Your task to perform on an android device: install app "TextNow: Call + Text Unlimited" Image 0: 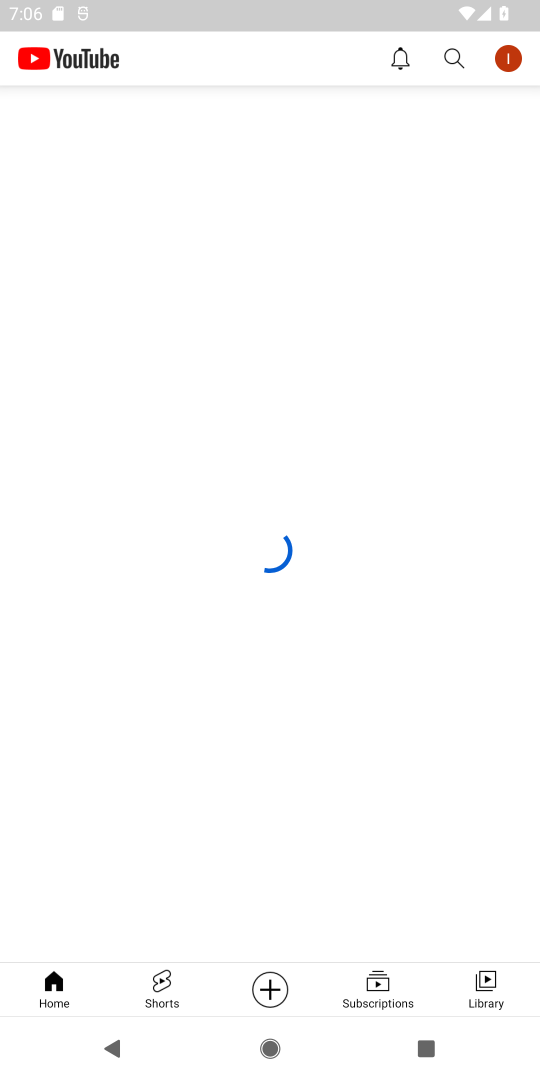
Step 0: press home button
Your task to perform on an android device: install app "TextNow: Call + Text Unlimited" Image 1: 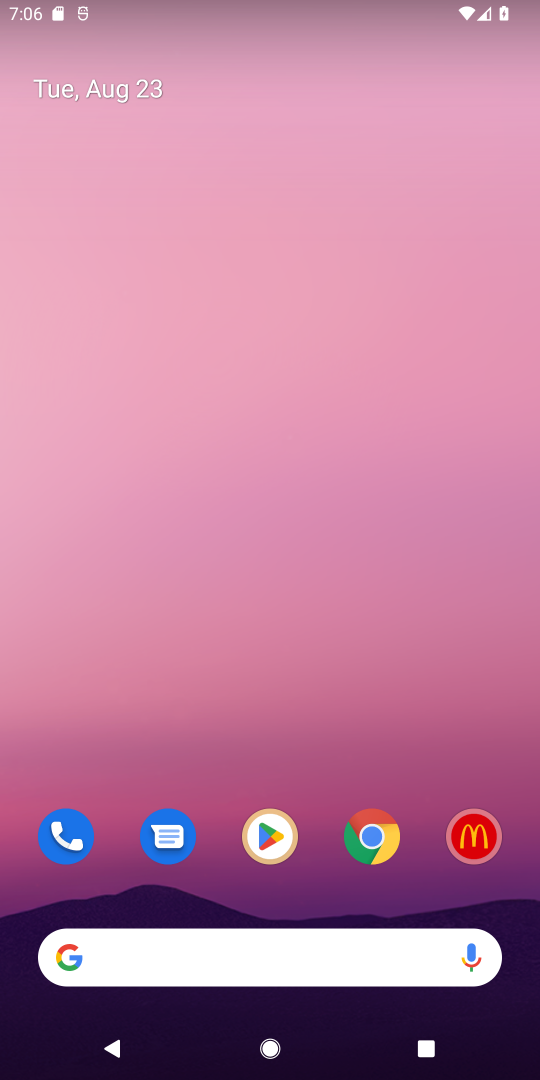
Step 1: click (267, 836)
Your task to perform on an android device: install app "TextNow: Call + Text Unlimited" Image 2: 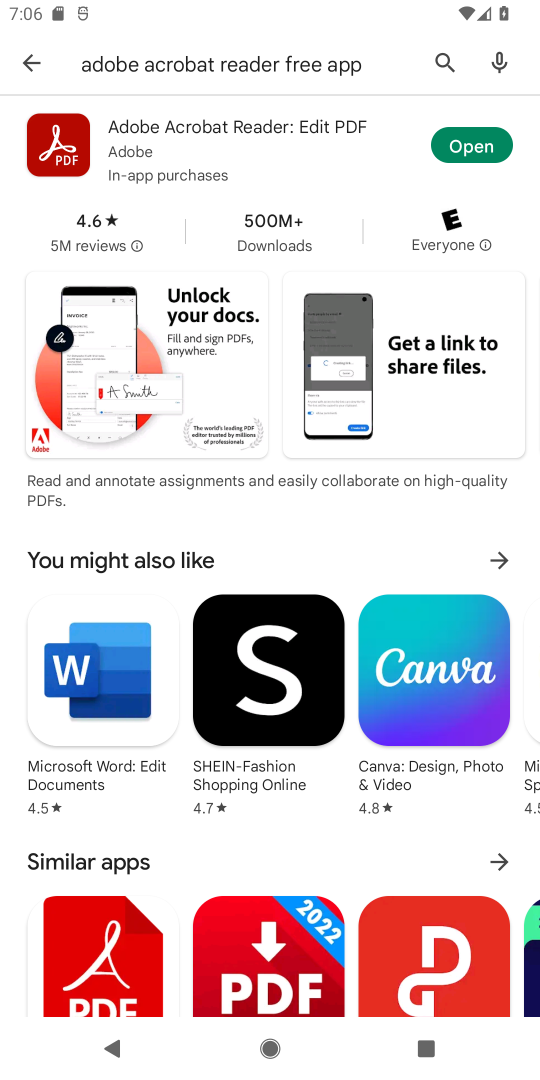
Step 2: click (445, 61)
Your task to perform on an android device: install app "TextNow: Call + Text Unlimited" Image 3: 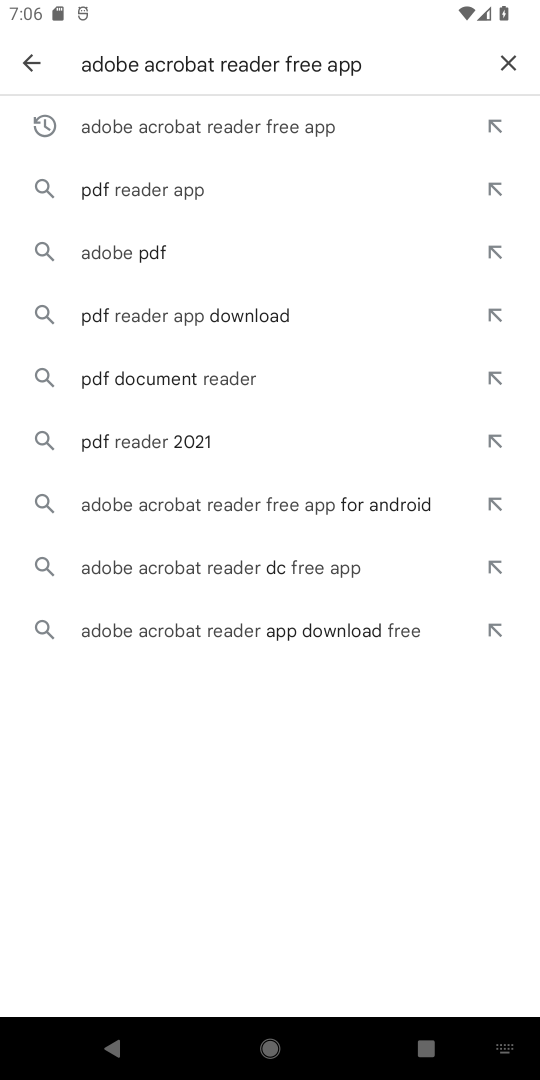
Step 3: click (513, 59)
Your task to perform on an android device: install app "TextNow: Call + Text Unlimited" Image 4: 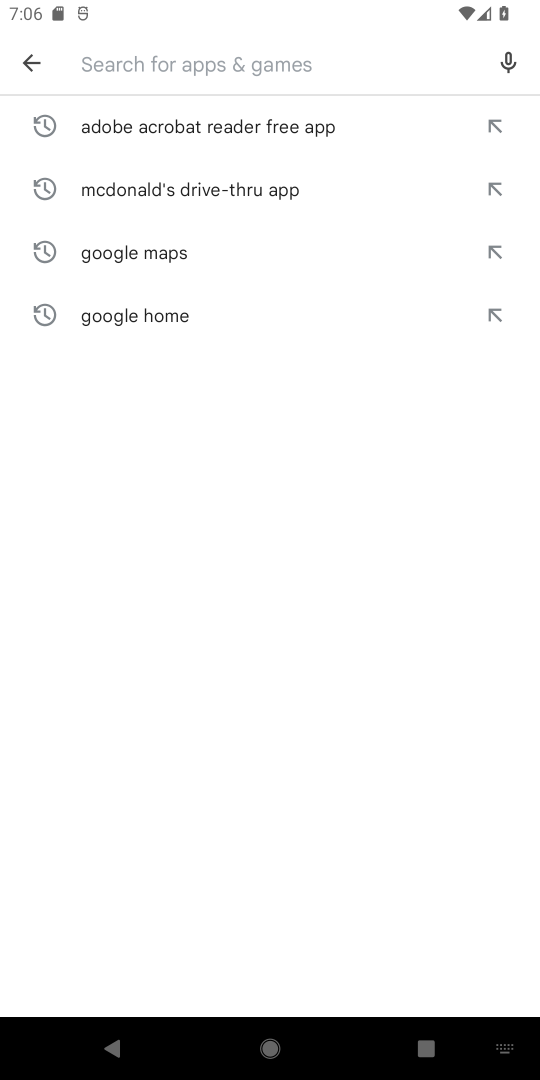
Step 4: type "TextNow: Call + Text Unlimited"
Your task to perform on an android device: install app "TextNow: Call + Text Unlimited" Image 5: 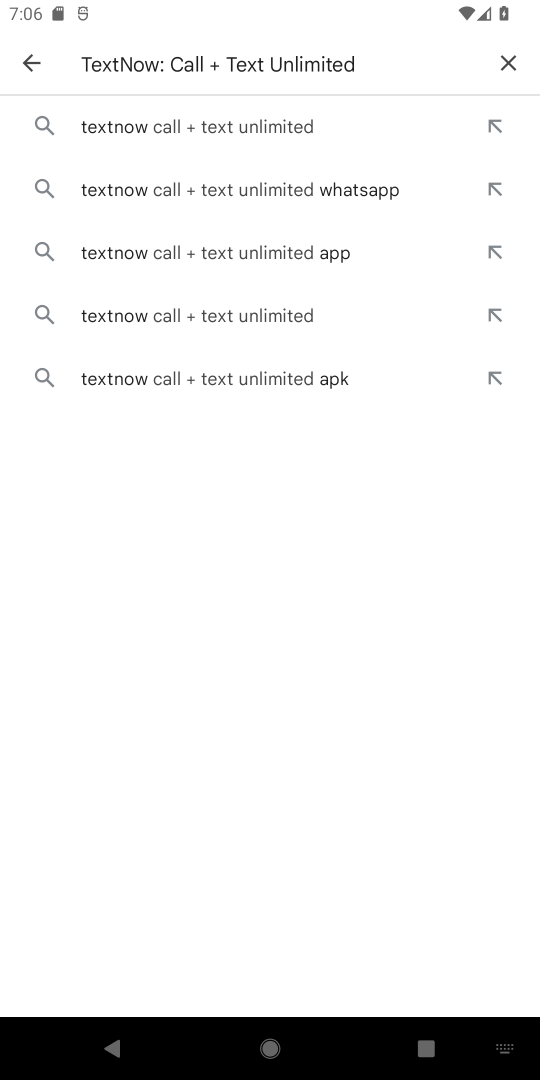
Step 5: click (284, 124)
Your task to perform on an android device: install app "TextNow: Call + Text Unlimited" Image 6: 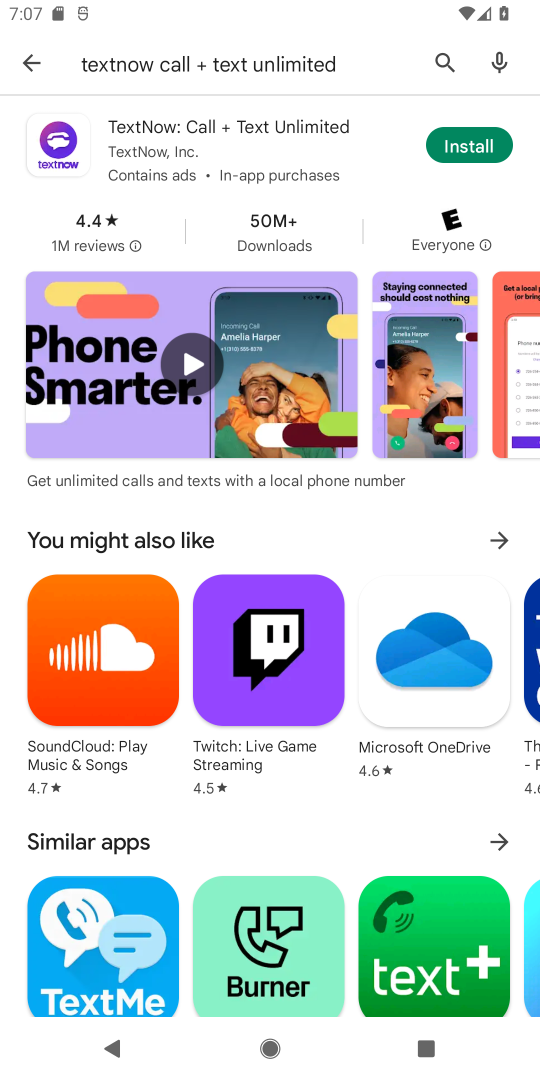
Step 6: click (468, 142)
Your task to perform on an android device: install app "TextNow: Call + Text Unlimited" Image 7: 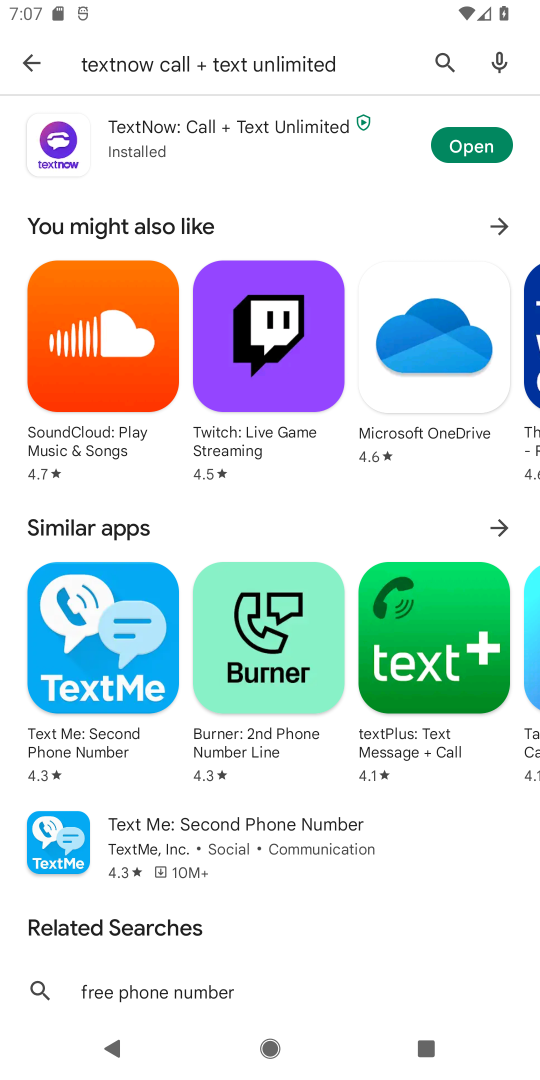
Step 7: task complete